Your task to perform on an android device: Open calendar and show me the fourth week of next month Image 0: 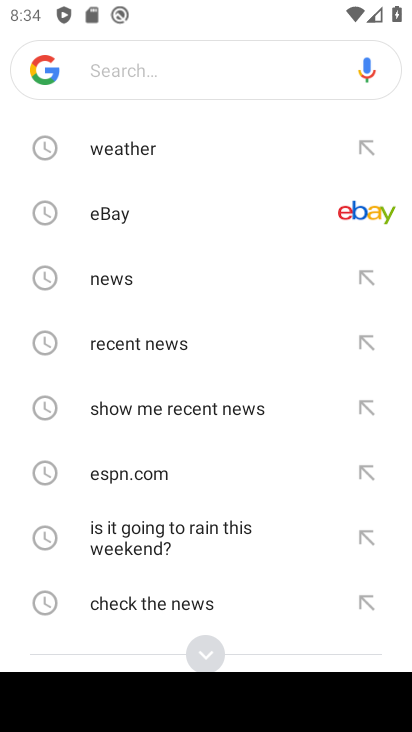
Step 0: press home button
Your task to perform on an android device: Open calendar and show me the fourth week of next month Image 1: 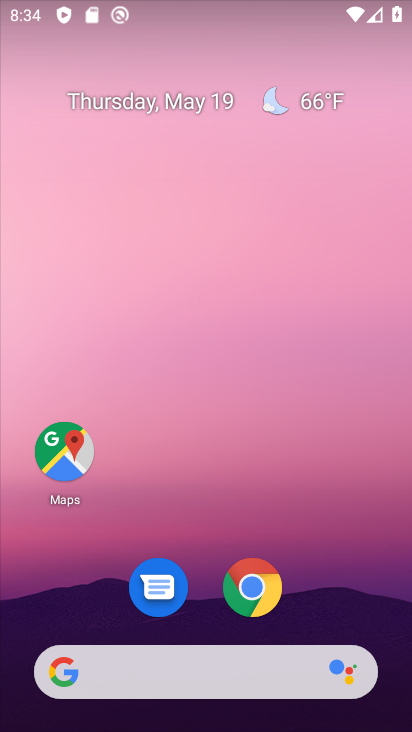
Step 1: drag from (244, 643) to (194, 255)
Your task to perform on an android device: Open calendar and show me the fourth week of next month Image 2: 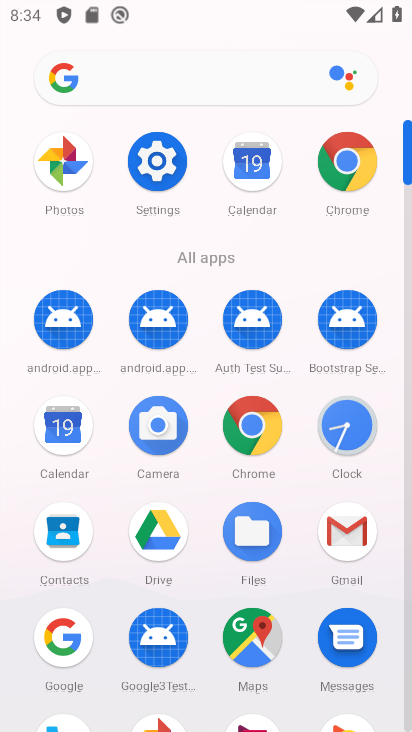
Step 2: click (70, 437)
Your task to perform on an android device: Open calendar and show me the fourth week of next month Image 3: 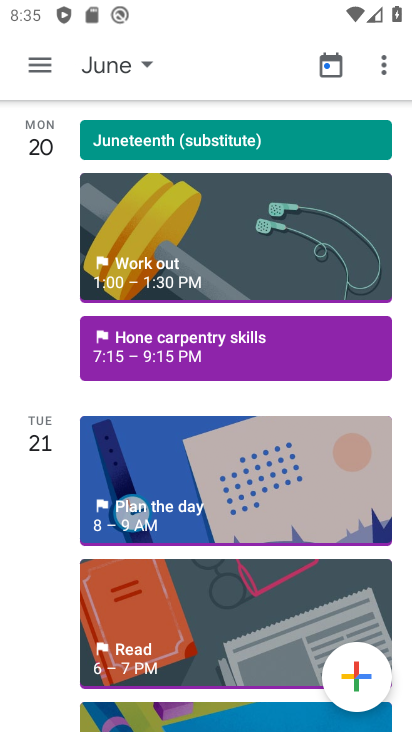
Step 3: click (25, 63)
Your task to perform on an android device: Open calendar and show me the fourth week of next month Image 4: 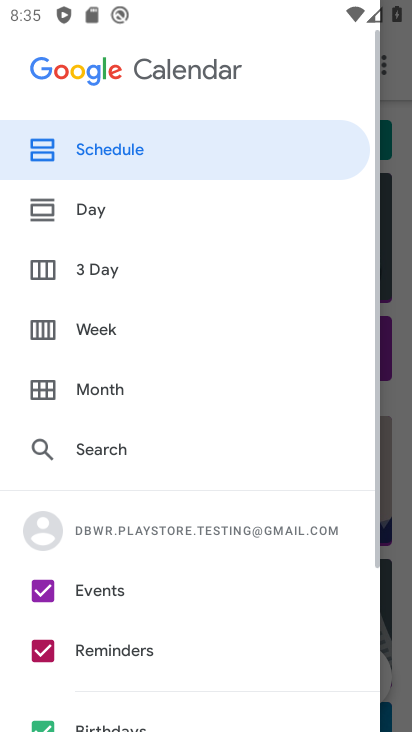
Step 4: click (44, 72)
Your task to perform on an android device: Open calendar and show me the fourth week of next month Image 5: 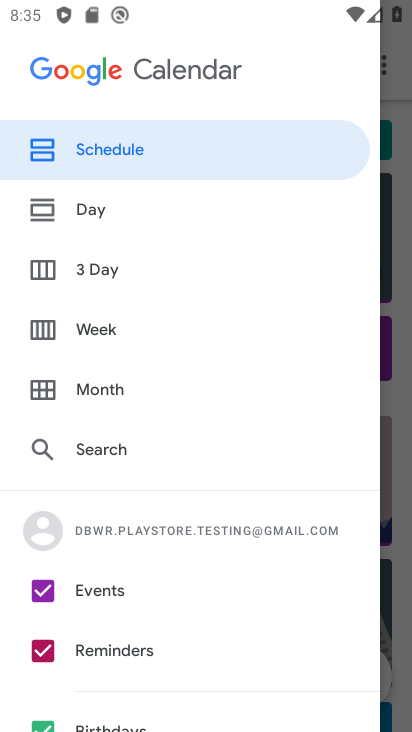
Step 5: click (33, 79)
Your task to perform on an android device: Open calendar and show me the fourth week of next month Image 6: 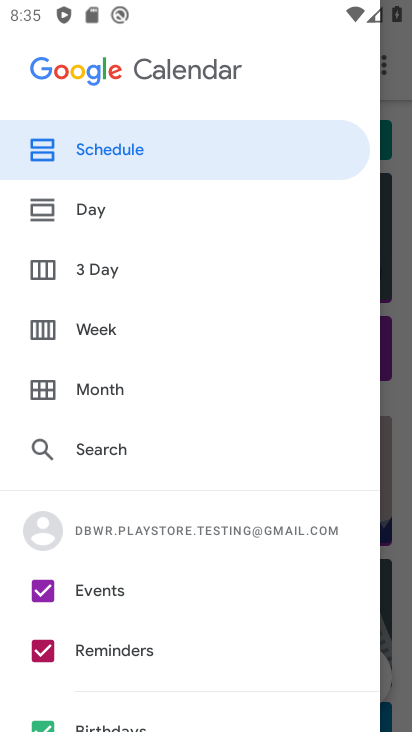
Step 6: click (111, 381)
Your task to perform on an android device: Open calendar and show me the fourth week of next month Image 7: 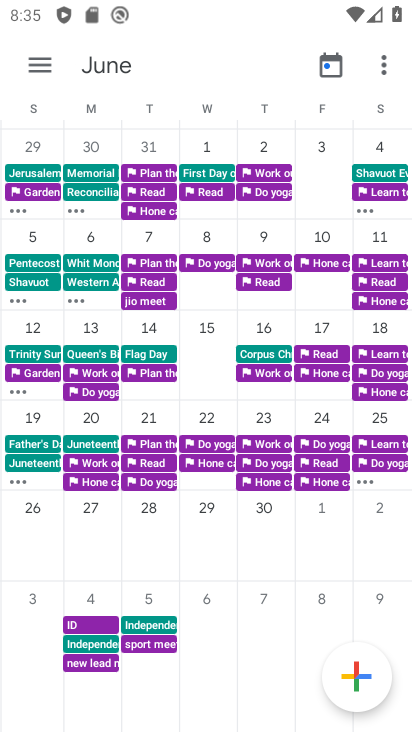
Step 7: click (94, 448)
Your task to perform on an android device: Open calendar and show me the fourth week of next month Image 8: 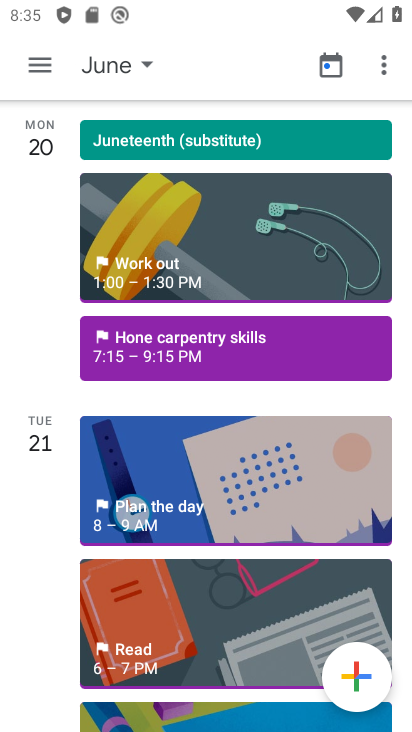
Step 8: task complete